Your task to perform on an android device: change the upload size in google photos Image 0: 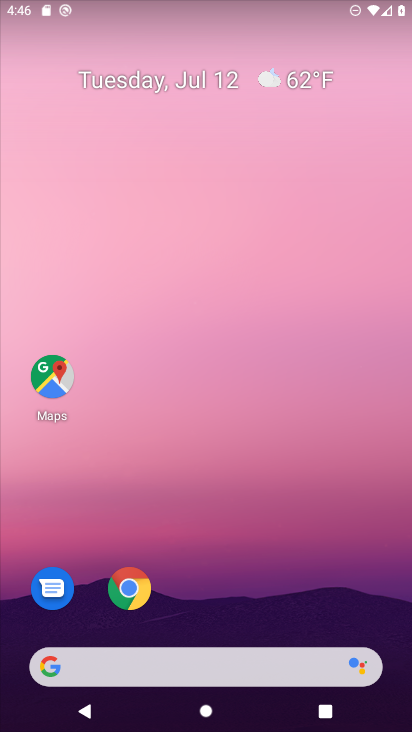
Step 0: drag from (204, 621) to (237, 238)
Your task to perform on an android device: change the upload size in google photos Image 1: 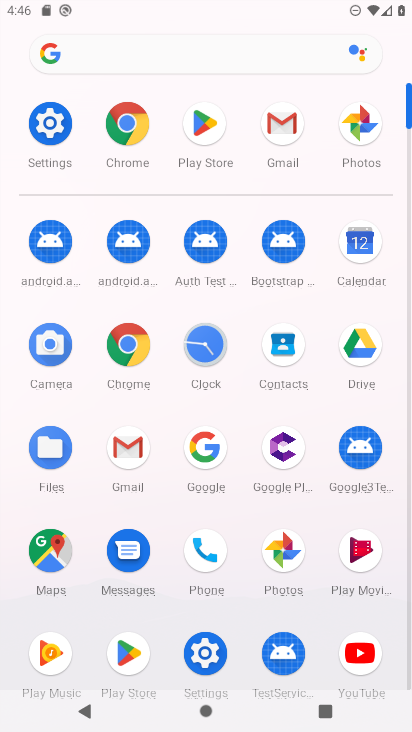
Step 1: click (284, 568)
Your task to perform on an android device: change the upload size in google photos Image 2: 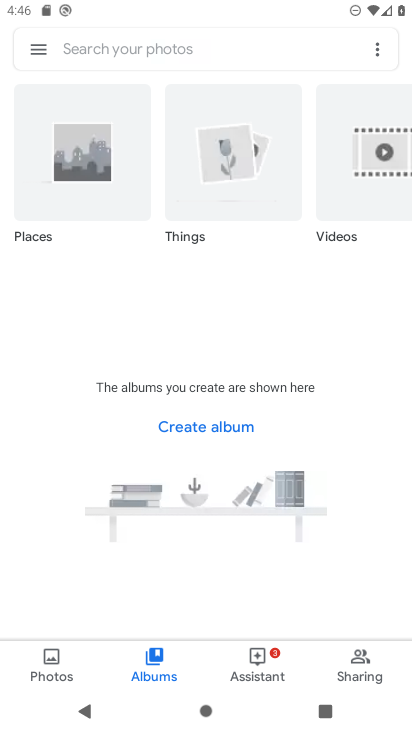
Step 2: click (36, 39)
Your task to perform on an android device: change the upload size in google photos Image 3: 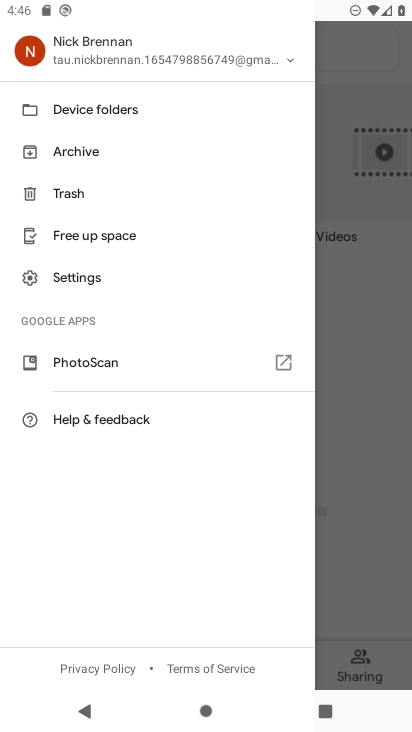
Step 3: click (91, 282)
Your task to perform on an android device: change the upload size in google photos Image 4: 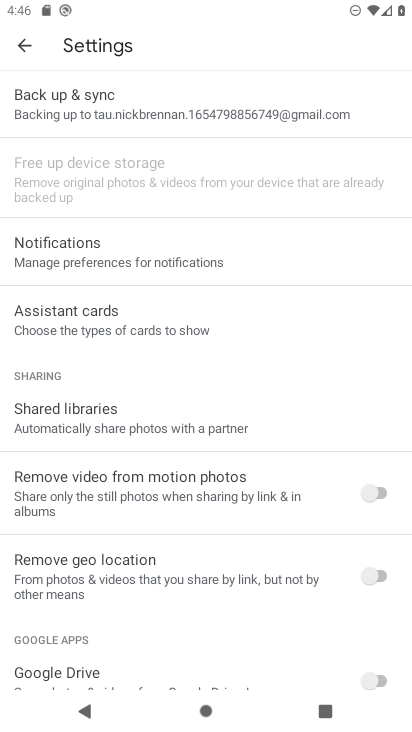
Step 4: click (136, 115)
Your task to perform on an android device: change the upload size in google photos Image 5: 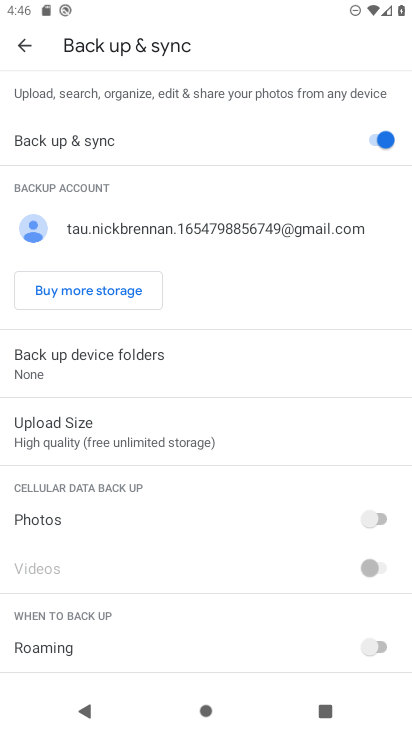
Step 5: click (166, 433)
Your task to perform on an android device: change the upload size in google photos Image 6: 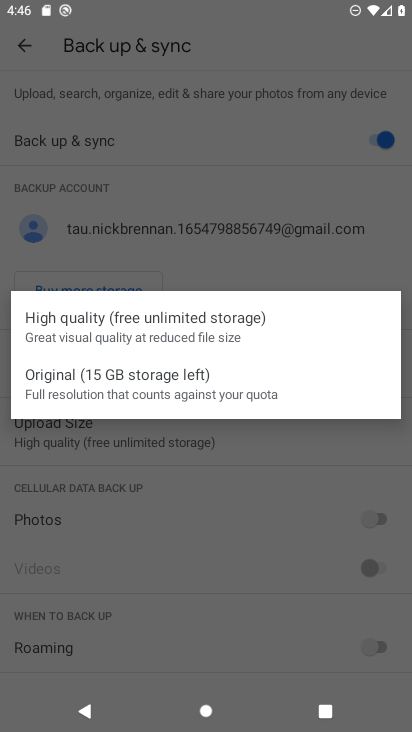
Step 6: click (127, 379)
Your task to perform on an android device: change the upload size in google photos Image 7: 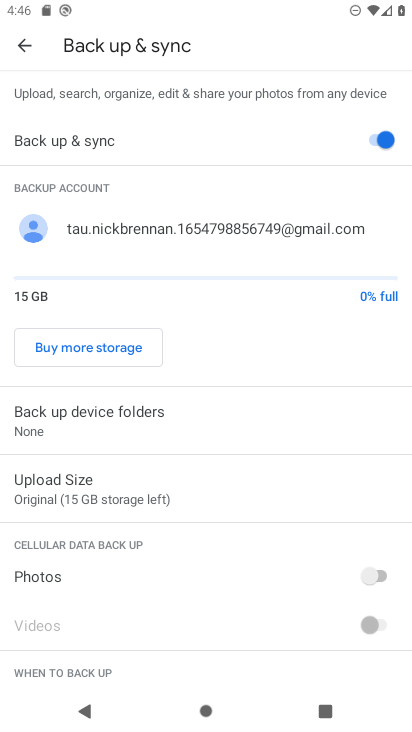
Step 7: task complete